Your task to perform on an android device: toggle notification dots Image 0: 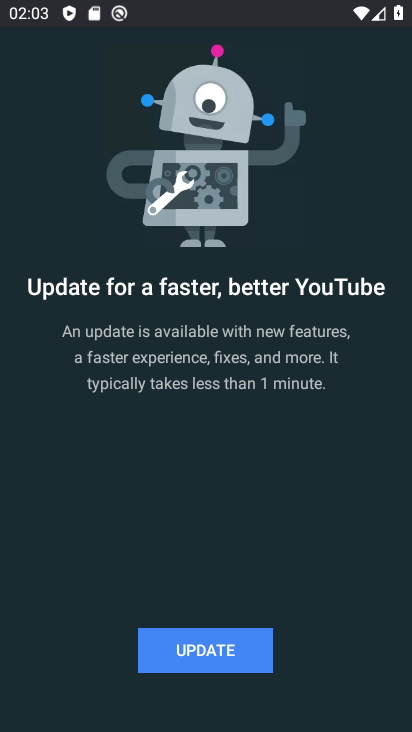
Step 0: press home button
Your task to perform on an android device: toggle notification dots Image 1: 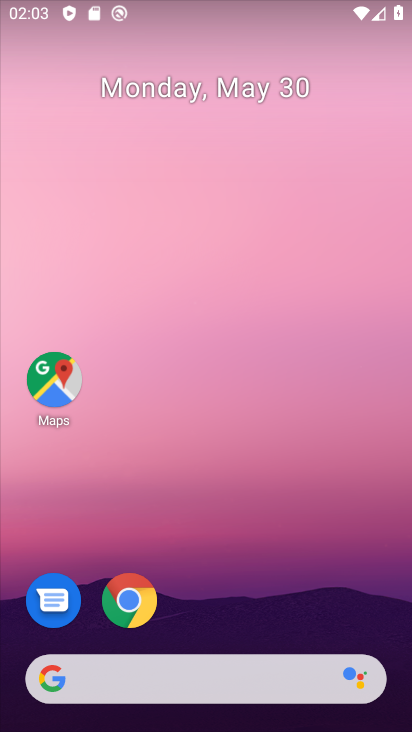
Step 1: drag from (256, 611) to (335, 118)
Your task to perform on an android device: toggle notification dots Image 2: 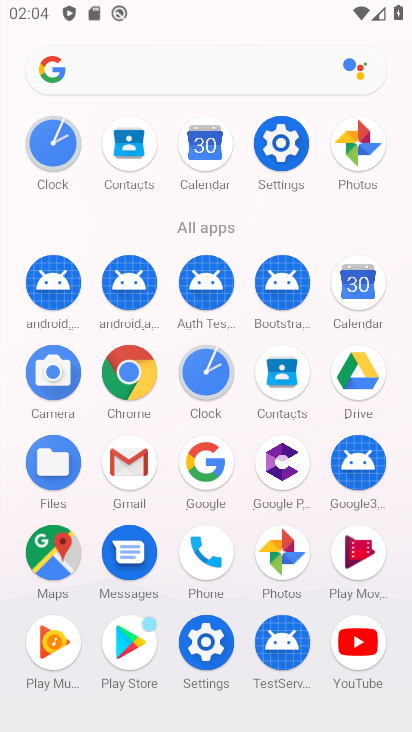
Step 2: click (294, 151)
Your task to perform on an android device: toggle notification dots Image 3: 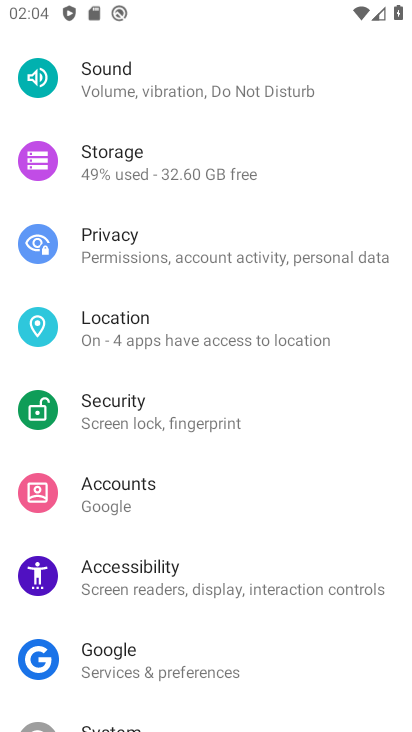
Step 3: drag from (294, 140) to (257, 406)
Your task to perform on an android device: toggle notification dots Image 4: 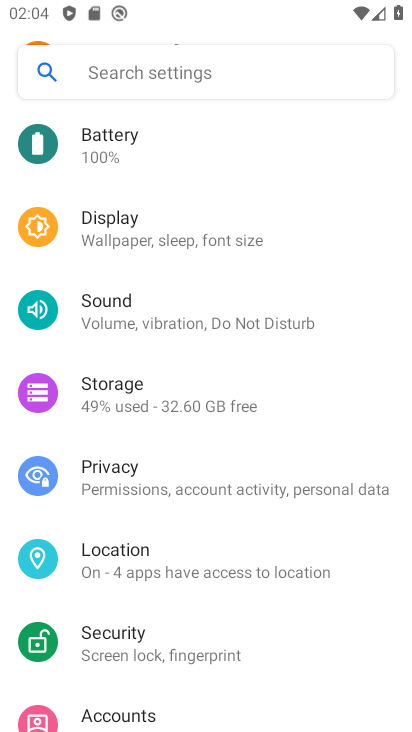
Step 4: drag from (278, 145) to (229, 470)
Your task to perform on an android device: toggle notification dots Image 5: 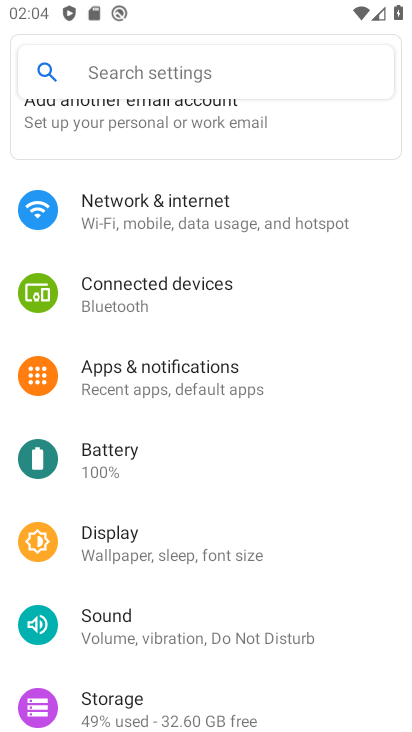
Step 5: click (210, 374)
Your task to perform on an android device: toggle notification dots Image 6: 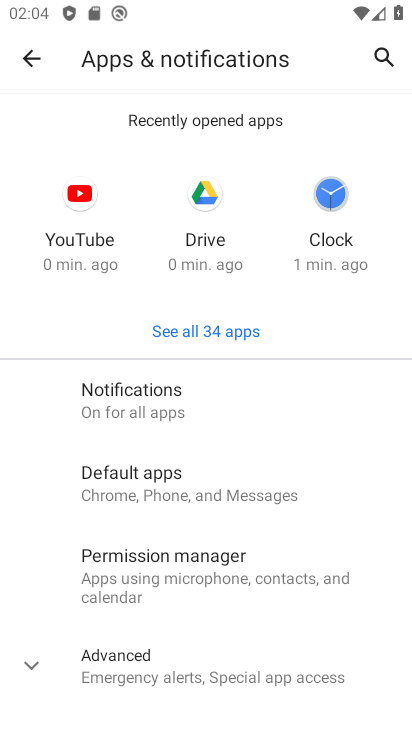
Step 6: click (174, 411)
Your task to perform on an android device: toggle notification dots Image 7: 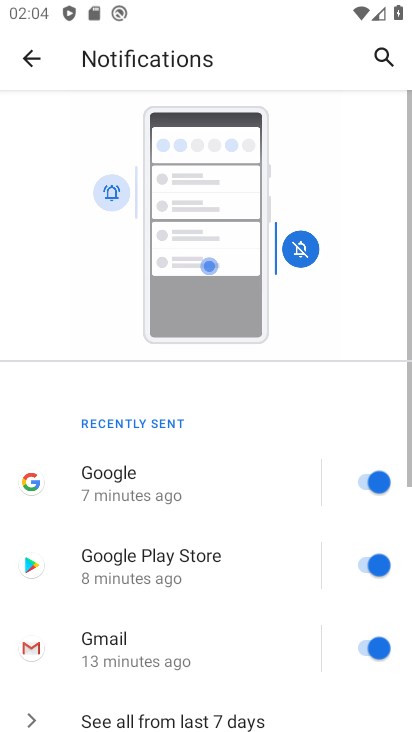
Step 7: drag from (297, 278) to (293, 222)
Your task to perform on an android device: toggle notification dots Image 8: 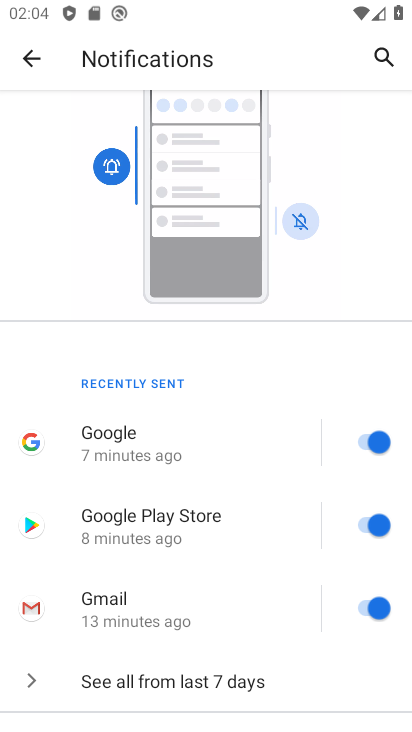
Step 8: drag from (257, 690) to (269, 299)
Your task to perform on an android device: toggle notification dots Image 9: 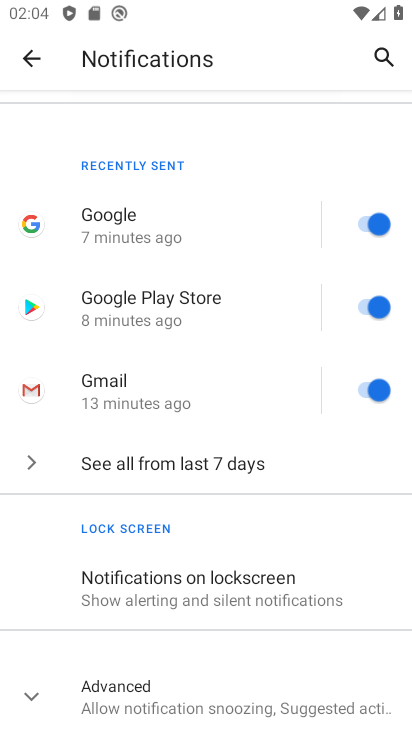
Step 9: drag from (273, 678) to (288, 159)
Your task to perform on an android device: toggle notification dots Image 10: 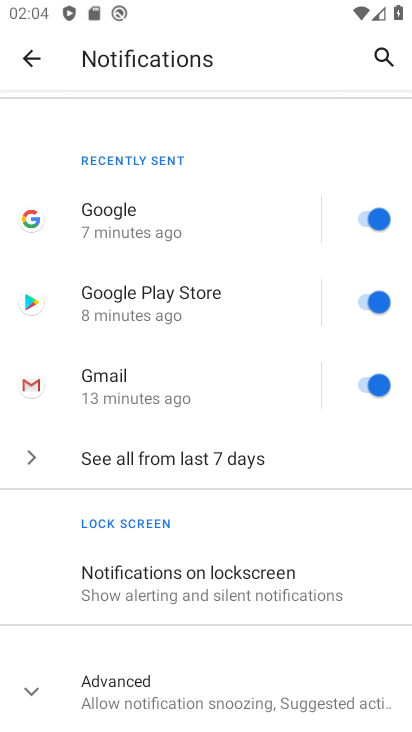
Step 10: click (207, 694)
Your task to perform on an android device: toggle notification dots Image 11: 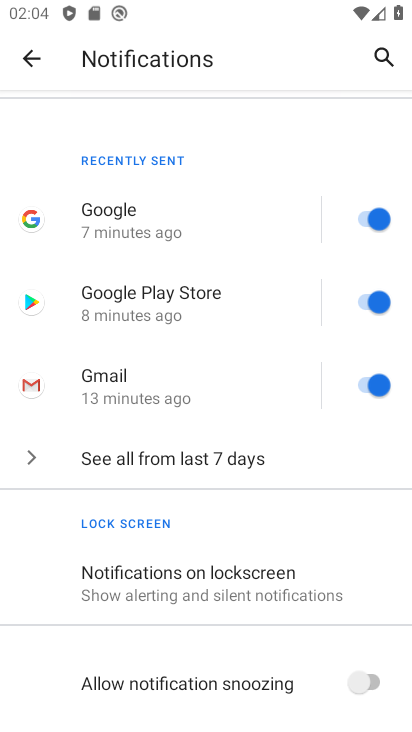
Step 11: drag from (237, 662) to (261, 247)
Your task to perform on an android device: toggle notification dots Image 12: 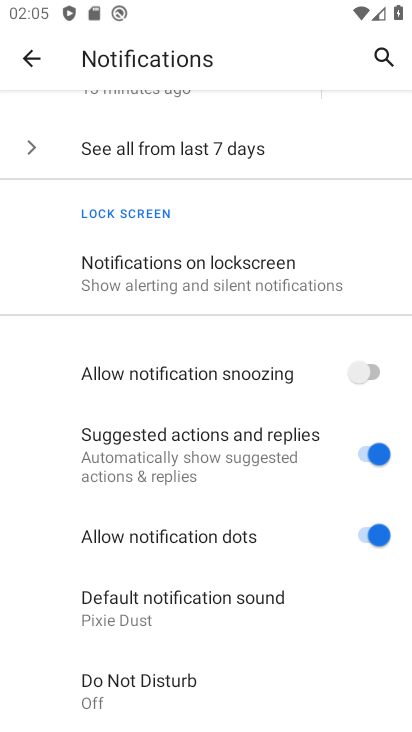
Step 12: click (367, 535)
Your task to perform on an android device: toggle notification dots Image 13: 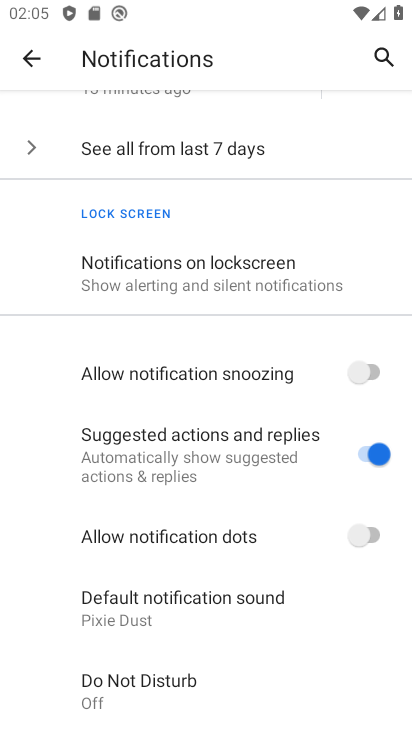
Step 13: task complete